Your task to perform on an android device: Go to eBay Image 0: 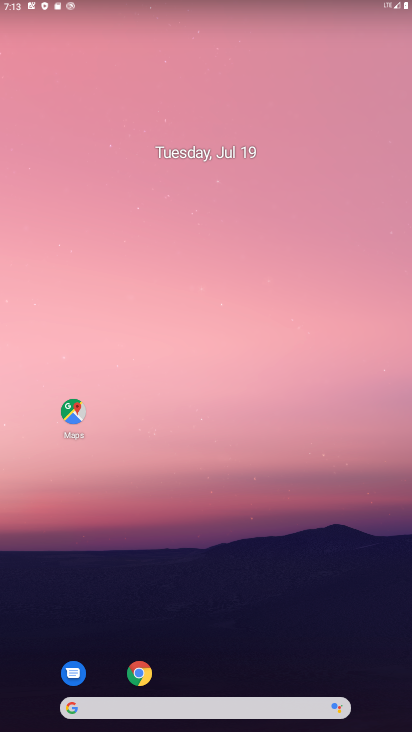
Step 0: drag from (357, 655) to (263, 10)
Your task to perform on an android device: Go to eBay Image 1: 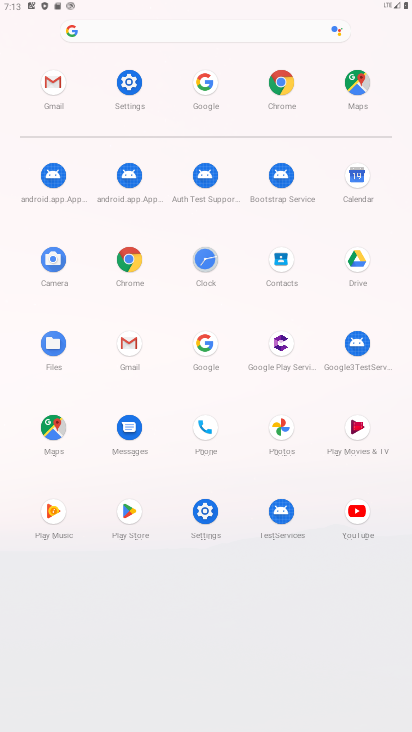
Step 1: click (197, 343)
Your task to perform on an android device: Go to eBay Image 2: 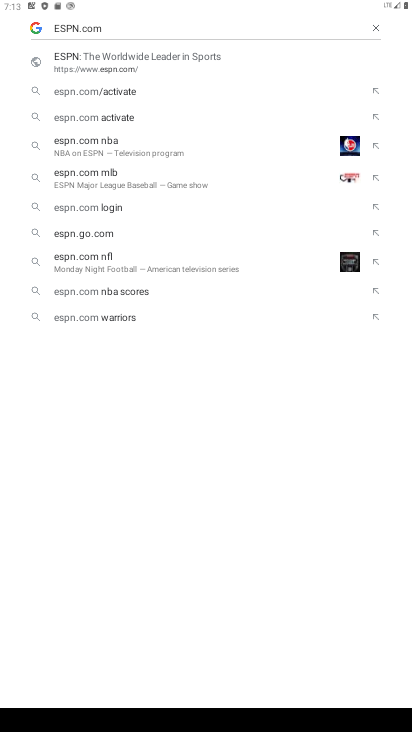
Step 2: click (378, 25)
Your task to perform on an android device: Go to eBay Image 3: 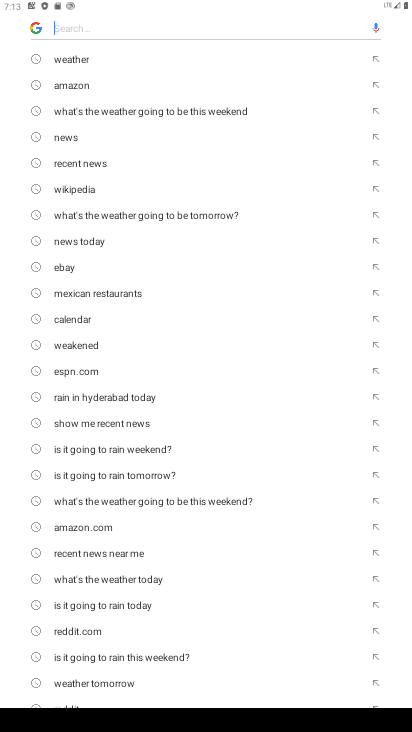
Step 3: click (72, 269)
Your task to perform on an android device: Go to eBay Image 4: 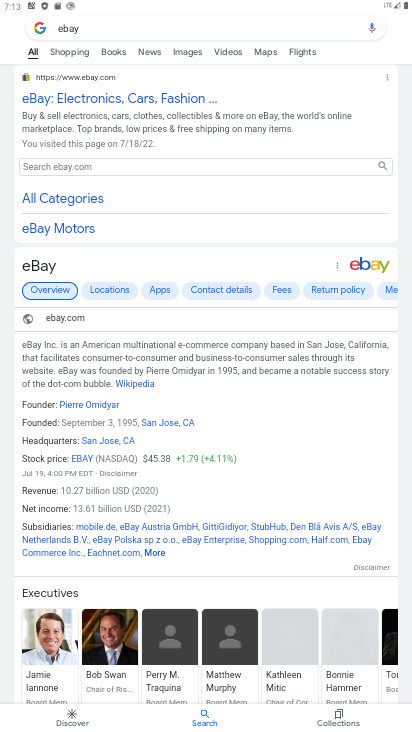
Step 4: task complete